Your task to perform on an android device: Clear all items from cart on newegg. Add macbook to the cart on newegg, then select checkout. Image 0: 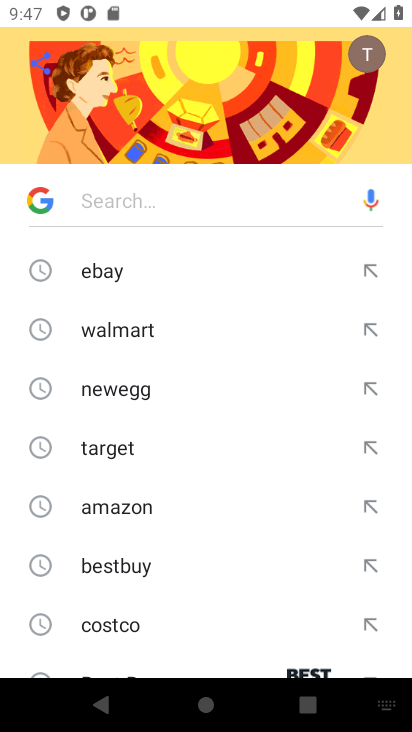
Step 0: press home button
Your task to perform on an android device: Clear all items from cart on newegg. Add macbook to the cart on newegg, then select checkout. Image 1: 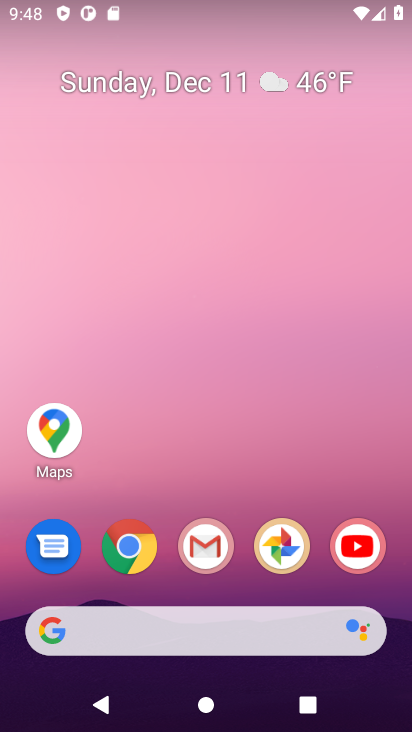
Step 1: click (127, 551)
Your task to perform on an android device: Clear all items from cart on newegg. Add macbook to the cart on newegg, then select checkout. Image 2: 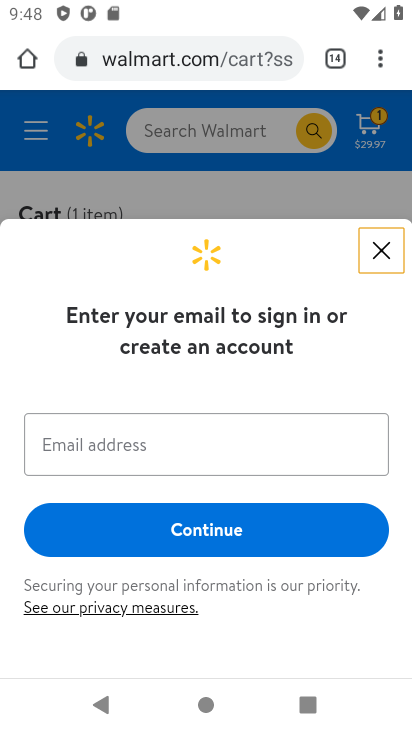
Step 2: click (152, 58)
Your task to perform on an android device: Clear all items from cart on newegg. Add macbook to the cart on newegg, then select checkout. Image 3: 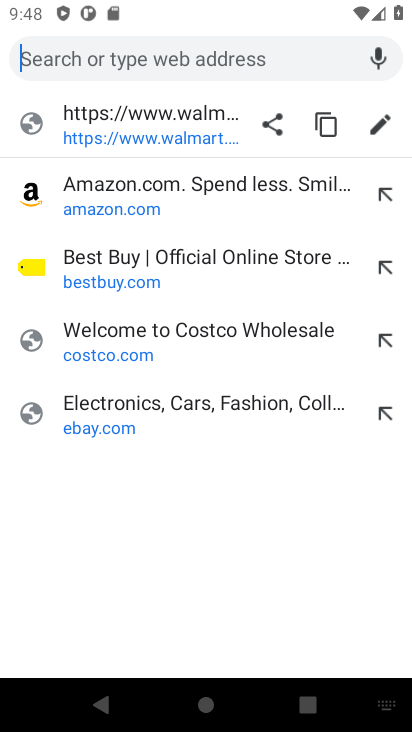
Step 3: type "newegg.com"
Your task to perform on an android device: Clear all items from cart on newegg. Add macbook to the cart on newegg, then select checkout. Image 4: 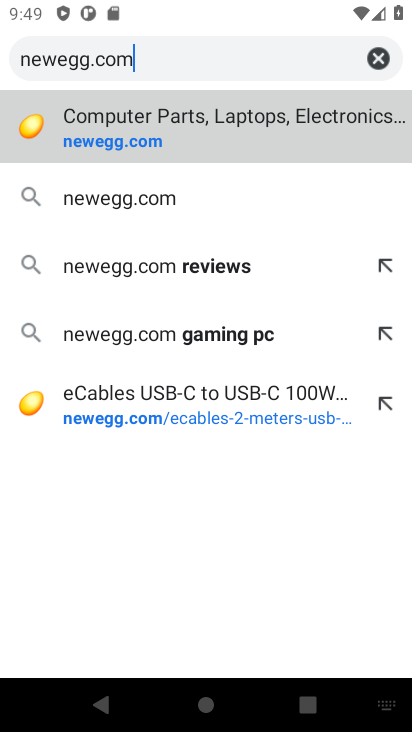
Step 4: click (122, 135)
Your task to perform on an android device: Clear all items from cart on newegg. Add macbook to the cart on newegg, then select checkout. Image 5: 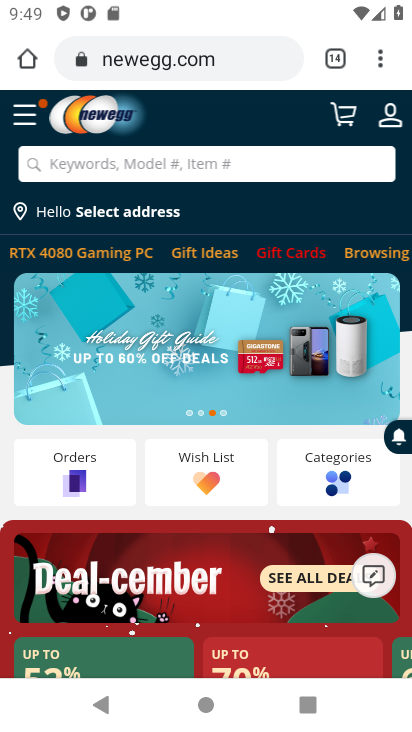
Step 5: click (345, 119)
Your task to perform on an android device: Clear all items from cart on newegg. Add macbook to the cart on newegg, then select checkout. Image 6: 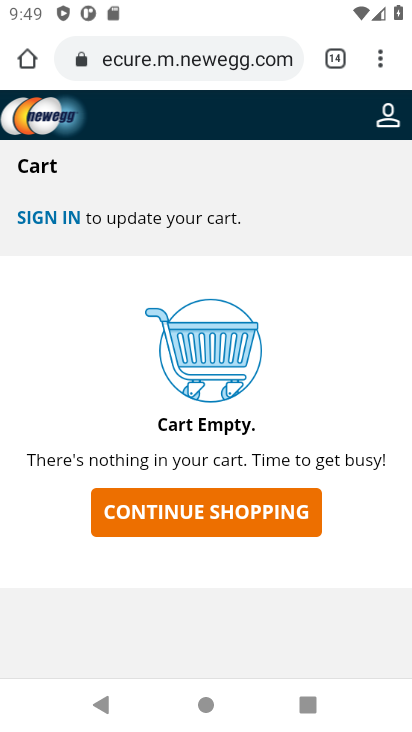
Step 6: click (170, 516)
Your task to perform on an android device: Clear all items from cart on newegg. Add macbook to the cart on newegg, then select checkout. Image 7: 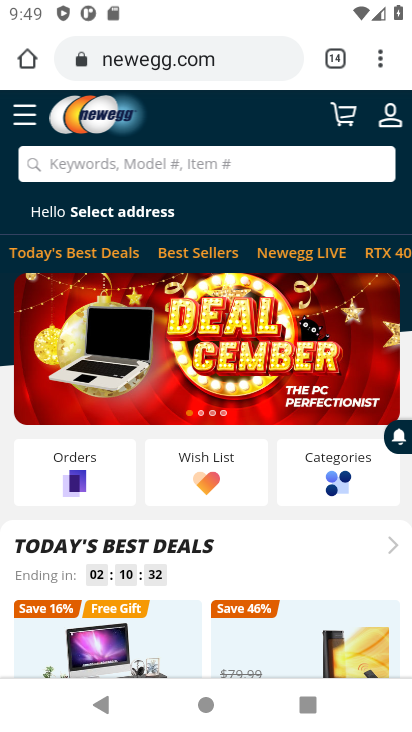
Step 7: click (114, 163)
Your task to perform on an android device: Clear all items from cart on newegg. Add macbook to the cart on newegg, then select checkout. Image 8: 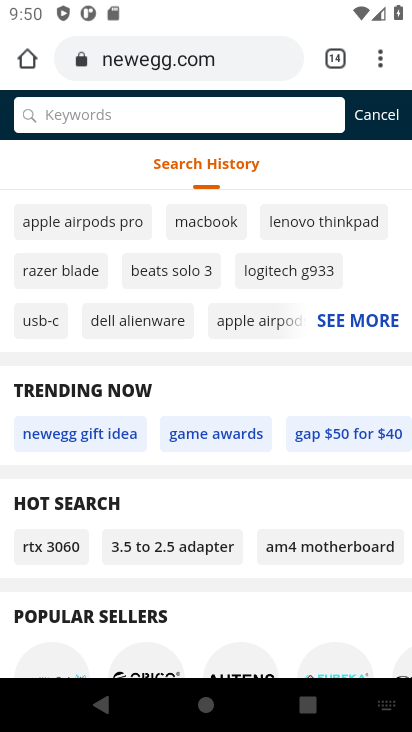
Step 8: click (104, 114)
Your task to perform on an android device: Clear all items from cart on newegg. Add macbook to the cart on newegg, then select checkout. Image 9: 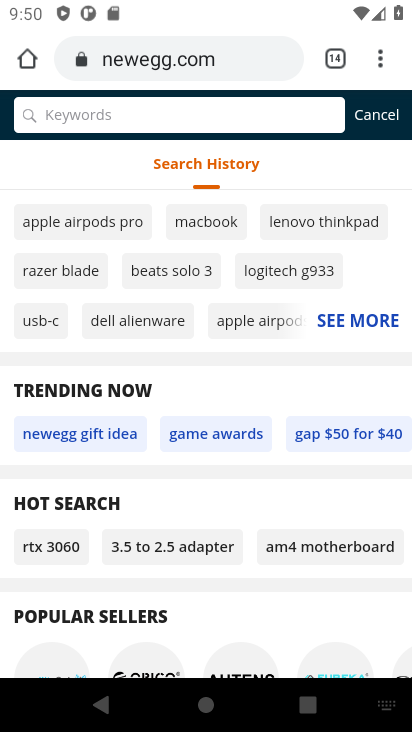
Step 9: type "macbook"
Your task to perform on an android device: Clear all items from cart on newegg. Add macbook to the cart on newegg, then select checkout. Image 10: 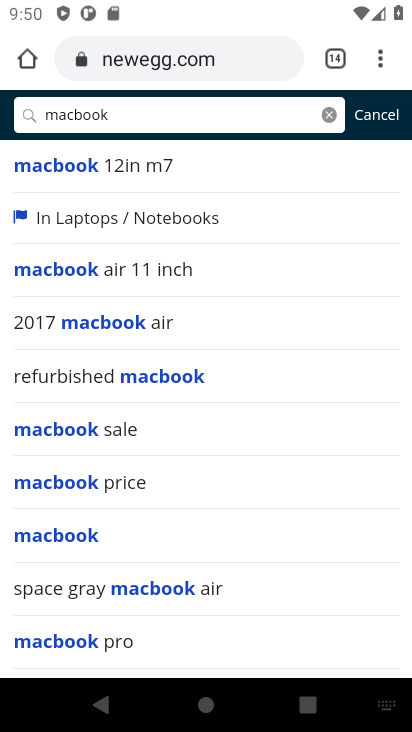
Step 10: click (55, 540)
Your task to perform on an android device: Clear all items from cart on newegg. Add macbook to the cart on newegg, then select checkout. Image 11: 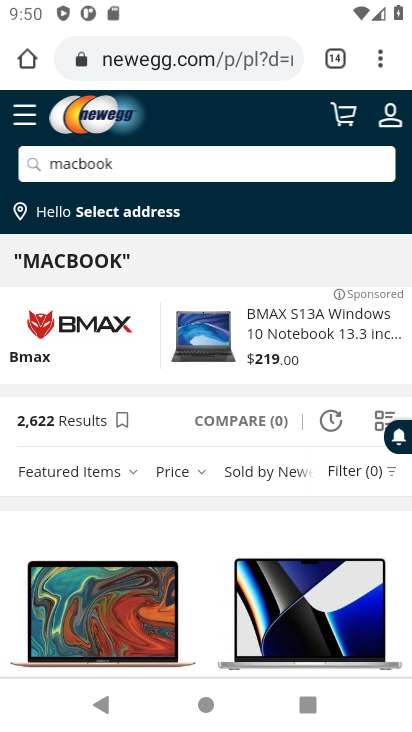
Step 11: drag from (145, 531) to (134, 282)
Your task to perform on an android device: Clear all items from cart on newegg. Add macbook to the cart on newegg, then select checkout. Image 12: 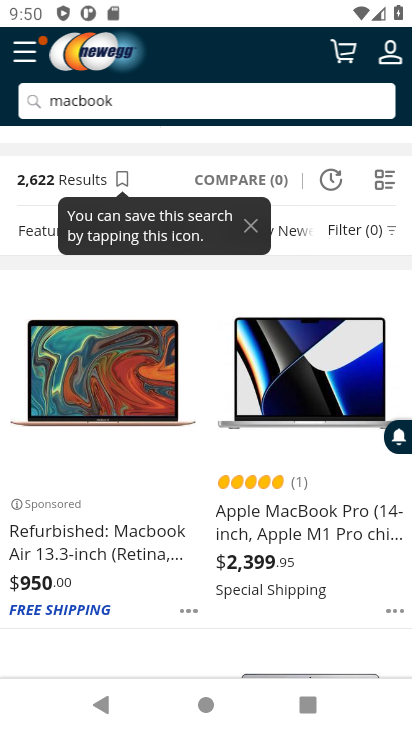
Step 12: drag from (144, 509) to (139, 286)
Your task to perform on an android device: Clear all items from cart on newegg. Add macbook to the cart on newegg, then select checkout. Image 13: 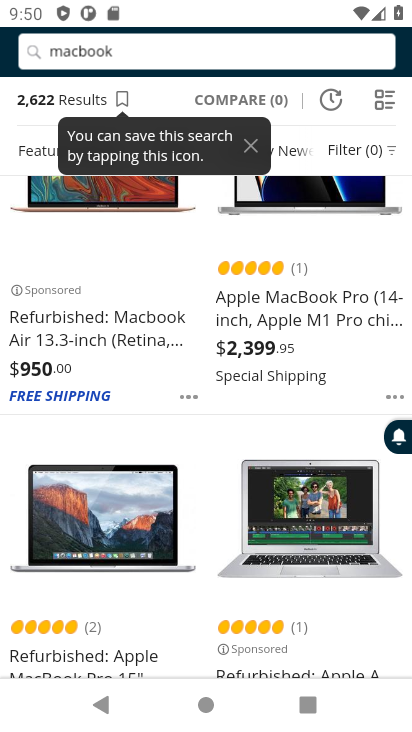
Step 13: click (94, 332)
Your task to perform on an android device: Clear all items from cart on newegg. Add macbook to the cart on newegg, then select checkout. Image 14: 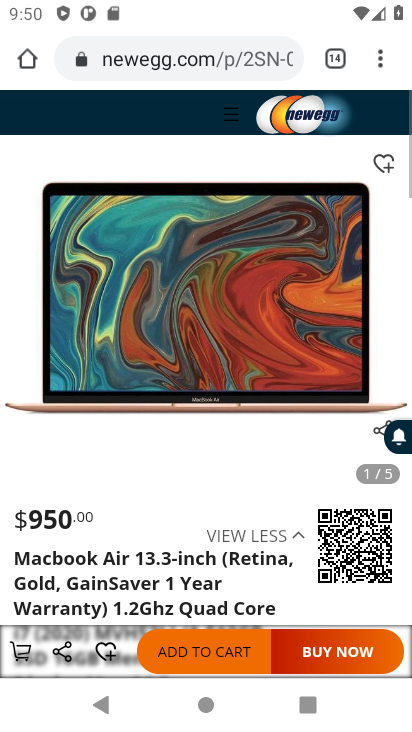
Step 14: click (181, 656)
Your task to perform on an android device: Clear all items from cart on newegg. Add macbook to the cart on newegg, then select checkout. Image 15: 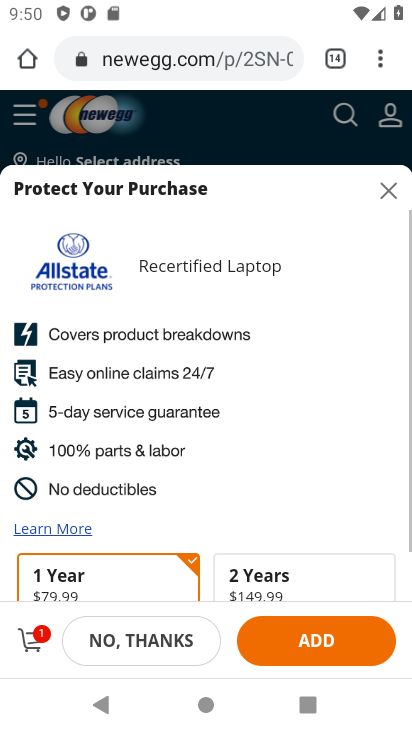
Step 15: click (33, 642)
Your task to perform on an android device: Clear all items from cart on newegg. Add macbook to the cart on newegg, then select checkout. Image 16: 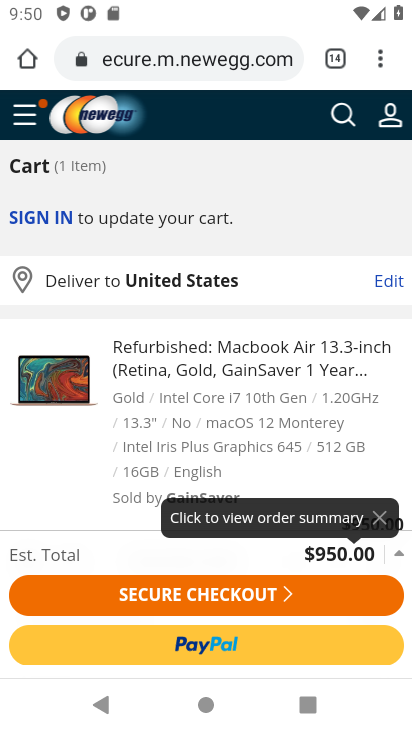
Step 16: click (169, 596)
Your task to perform on an android device: Clear all items from cart on newegg. Add macbook to the cart on newegg, then select checkout. Image 17: 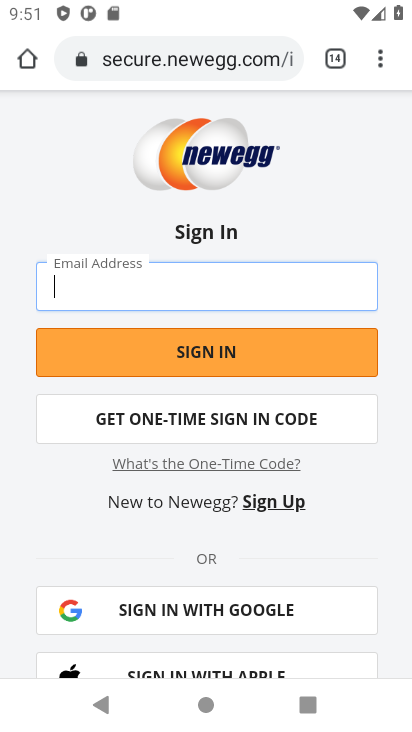
Step 17: task complete